Your task to perform on an android device: Open the calendar and show me this week's events? Image 0: 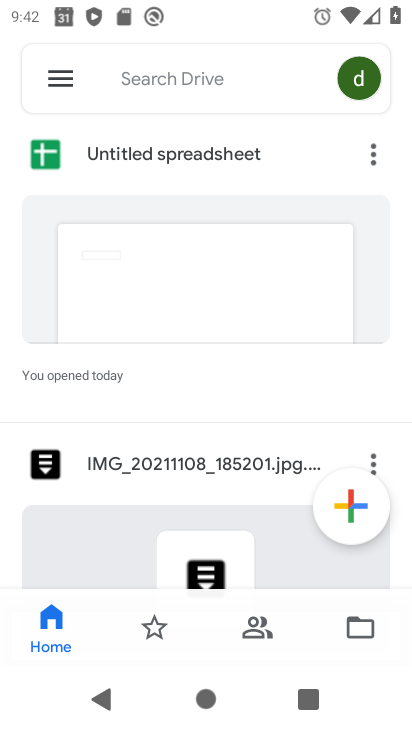
Step 0: press home button
Your task to perform on an android device: Open the calendar and show me this week's events? Image 1: 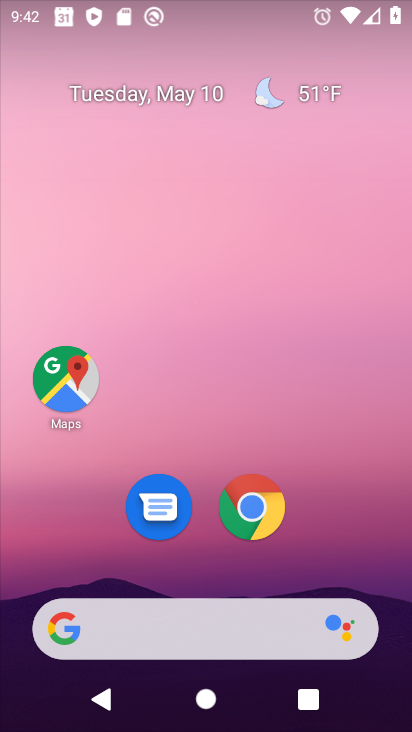
Step 1: click (137, 93)
Your task to perform on an android device: Open the calendar and show me this week's events? Image 2: 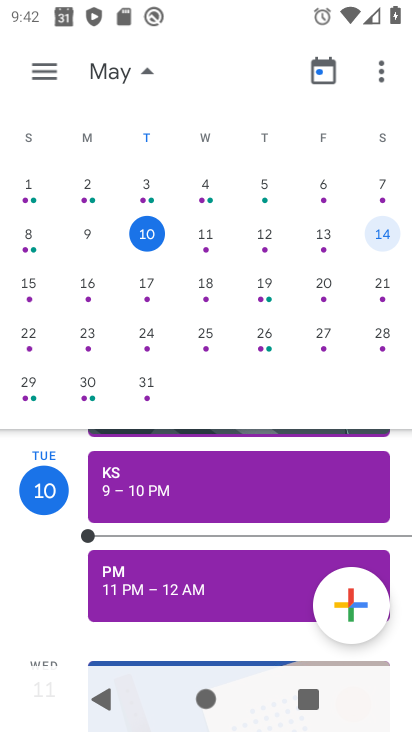
Step 2: task complete